Your task to perform on an android device: open device folders in google photos Image 0: 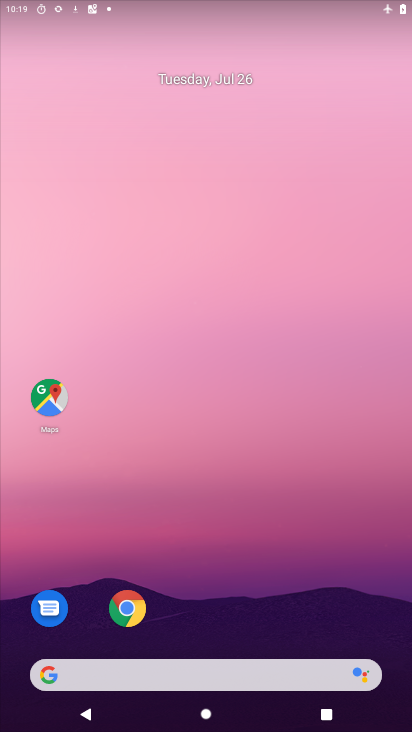
Step 0: drag from (195, 609) to (182, 97)
Your task to perform on an android device: open device folders in google photos Image 1: 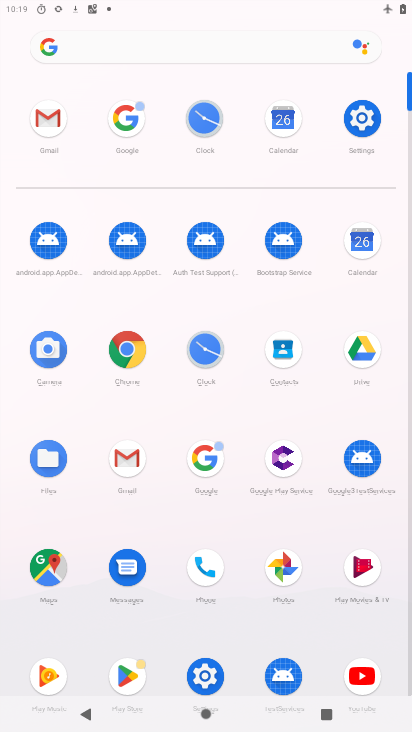
Step 1: click (292, 549)
Your task to perform on an android device: open device folders in google photos Image 2: 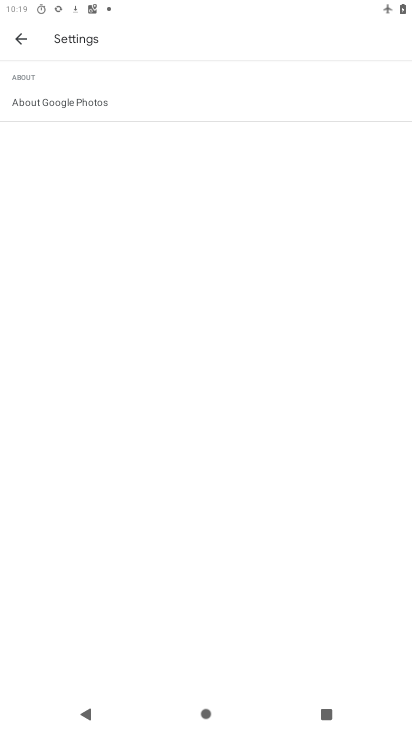
Step 2: click (12, 27)
Your task to perform on an android device: open device folders in google photos Image 3: 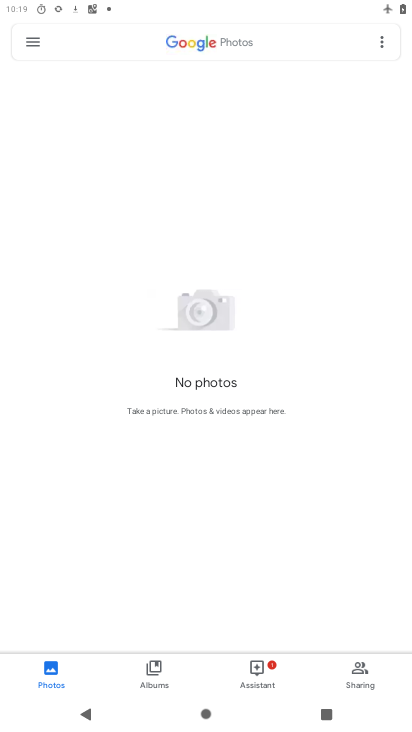
Step 3: click (15, 37)
Your task to perform on an android device: open device folders in google photos Image 4: 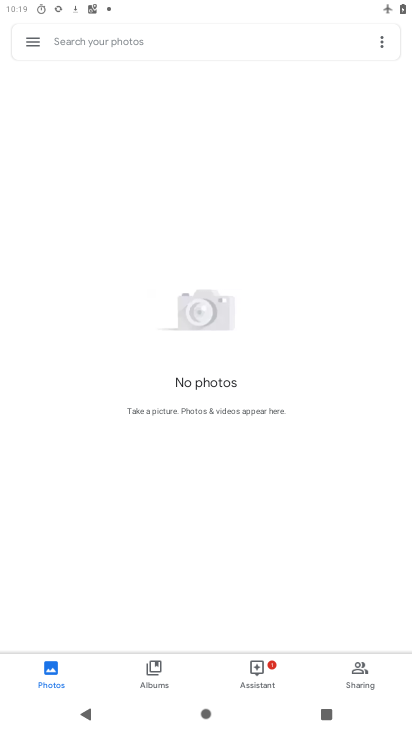
Step 4: click (21, 45)
Your task to perform on an android device: open device folders in google photos Image 5: 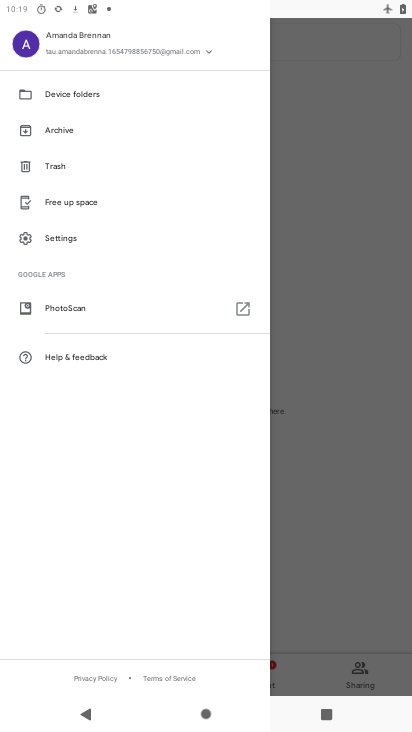
Step 5: click (87, 102)
Your task to perform on an android device: open device folders in google photos Image 6: 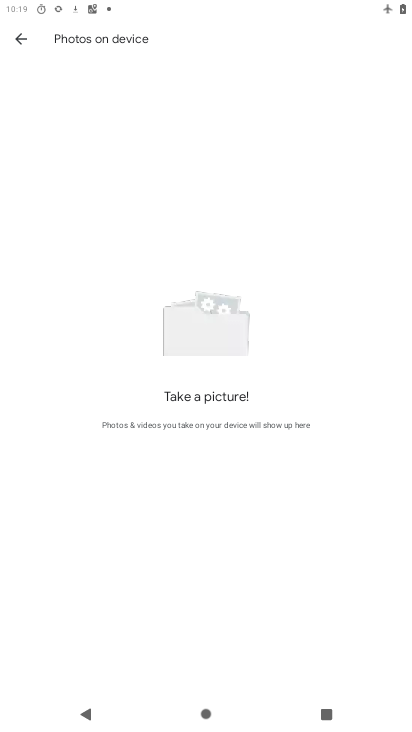
Step 6: task complete